Your task to perform on an android device: toggle location history Image 0: 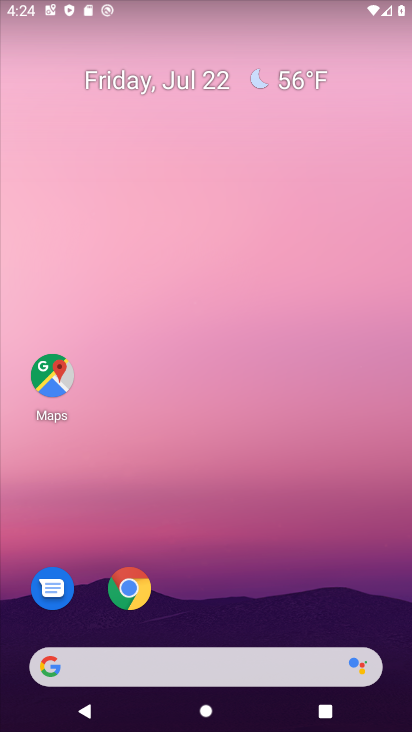
Step 0: drag from (195, 593) to (198, 211)
Your task to perform on an android device: toggle location history Image 1: 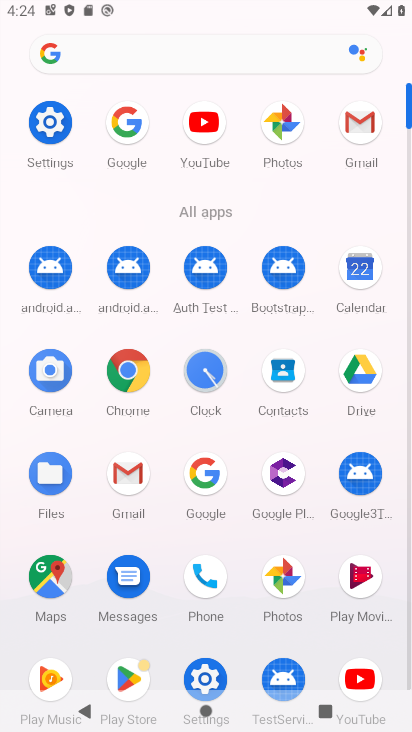
Step 1: click (42, 132)
Your task to perform on an android device: toggle location history Image 2: 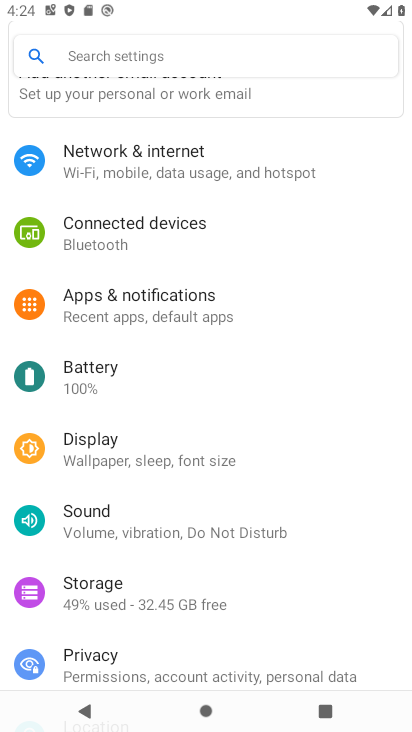
Step 2: drag from (185, 390) to (196, 330)
Your task to perform on an android device: toggle location history Image 3: 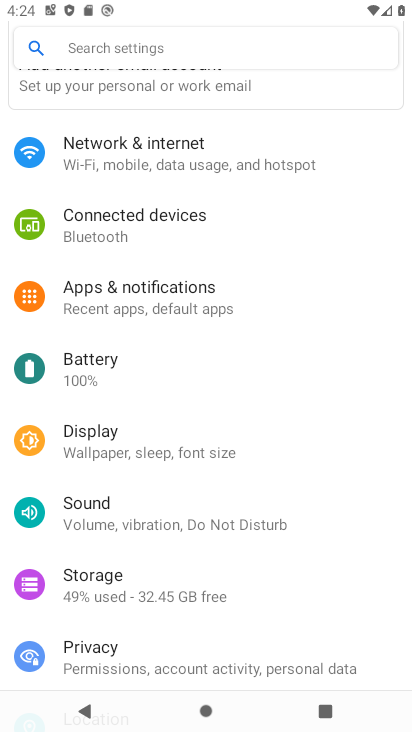
Step 3: drag from (147, 609) to (173, 281)
Your task to perform on an android device: toggle location history Image 4: 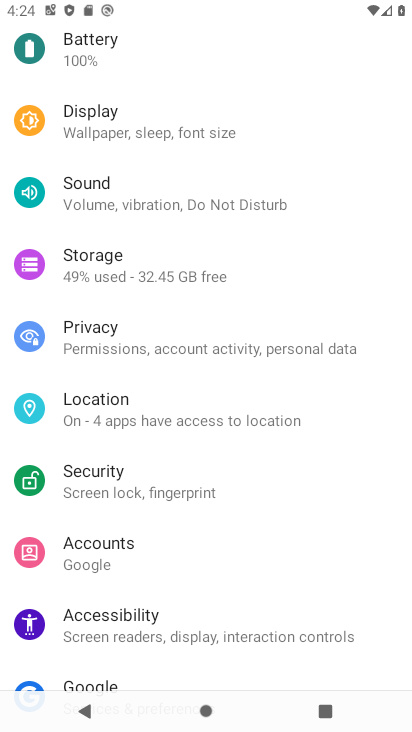
Step 4: drag from (112, 630) to (94, 349)
Your task to perform on an android device: toggle location history Image 5: 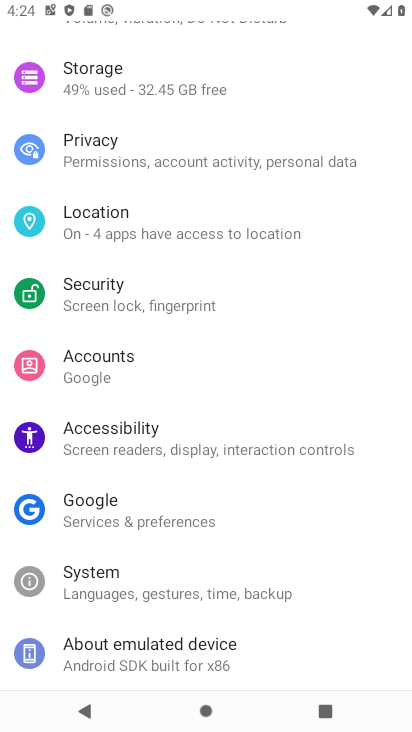
Step 5: drag from (108, 593) to (133, 279)
Your task to perform on an android device: toggle location history Image 6: 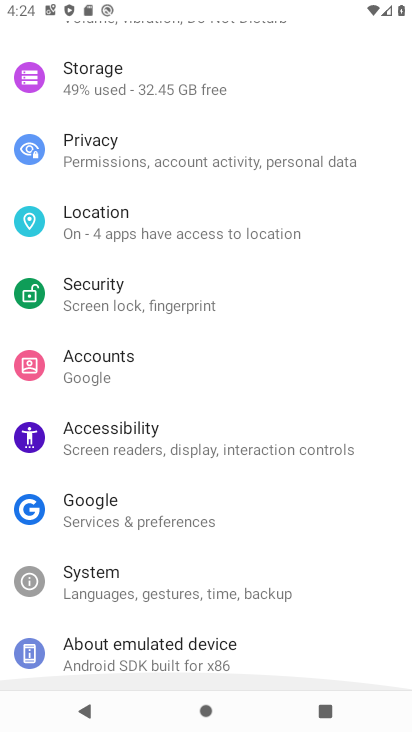
Step 6: click (120, 192)
Your task to perform on an android device: toggle location history Image 7: 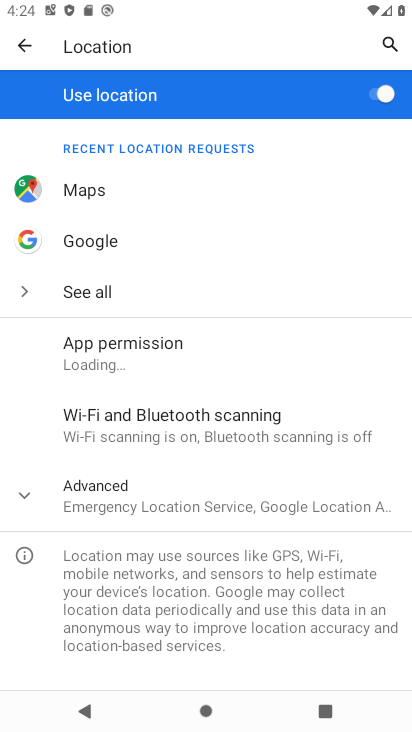
Step 7: click (138, 511)
Your task to perform on an android device: toggle location history Image 8: 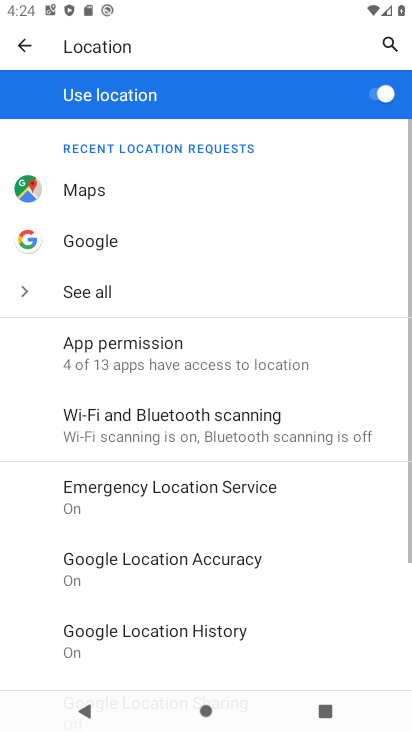
Step 8: click (263, 632)
Your task to perform on an android device: toggle location history Image 9: 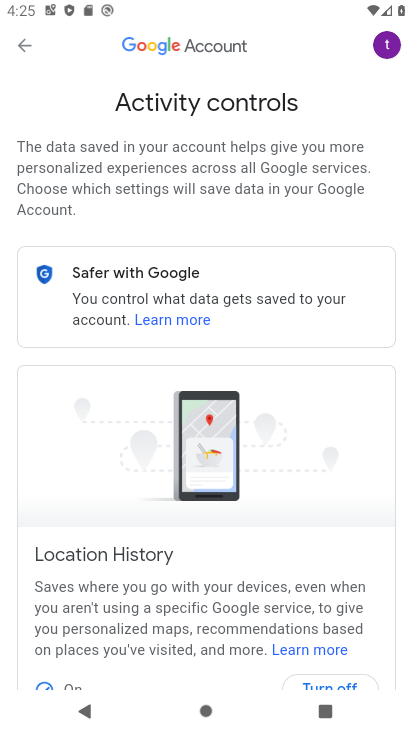
Step 9: drag from (264, 562) to (272, 186)
Your task to perform on an android device: toggle location history Image 10: 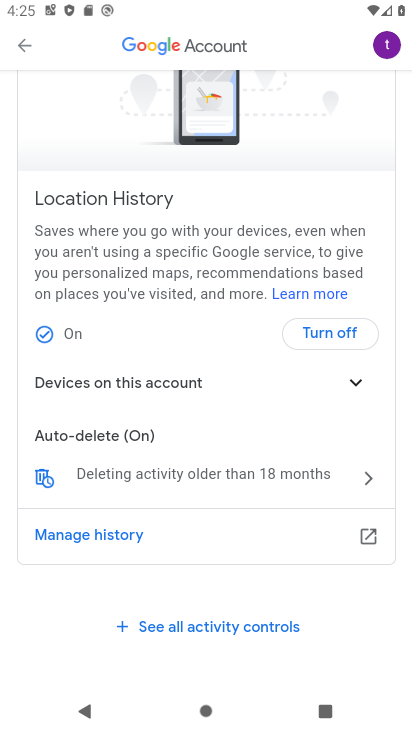
Step 10: click (317, 340)
Your task to perform on an android device: toggle location history Image 11: 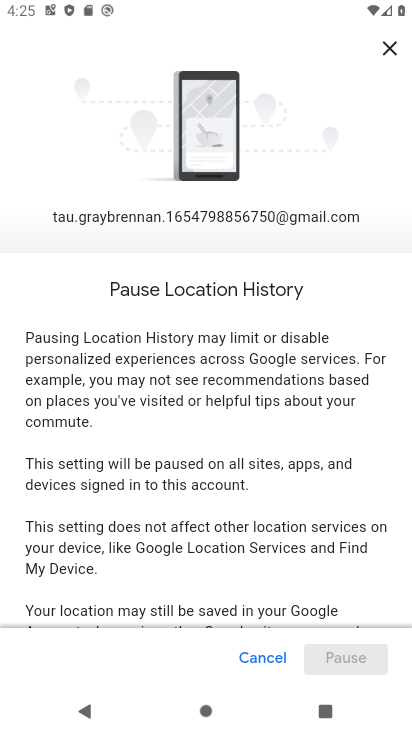
Step 11: drag from (286, 567) to (335, 231)
Your task to perform on an android device: toggle location history Image 12: 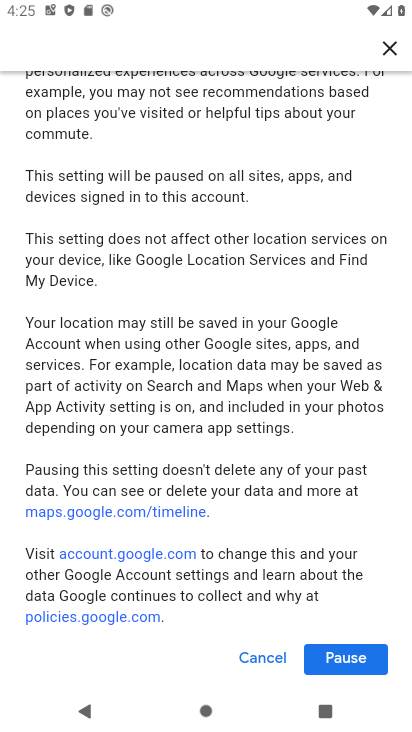
Step 12: click (335, 653)
Your task to perform on an android device: toggle location history Image 13: 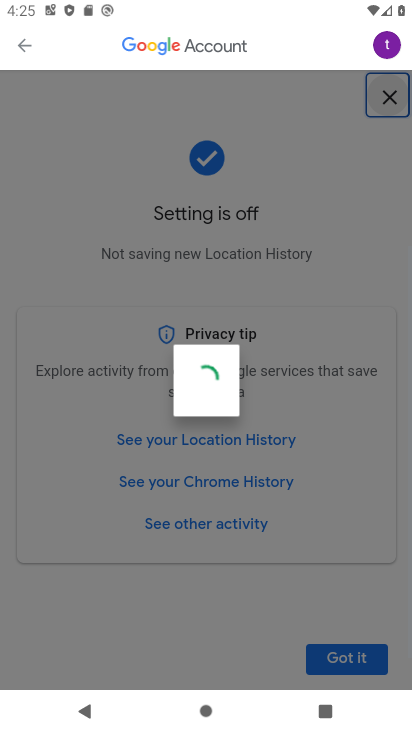
Step 13: task complete